Your task to perform on an android device: change the clock style Image 0: 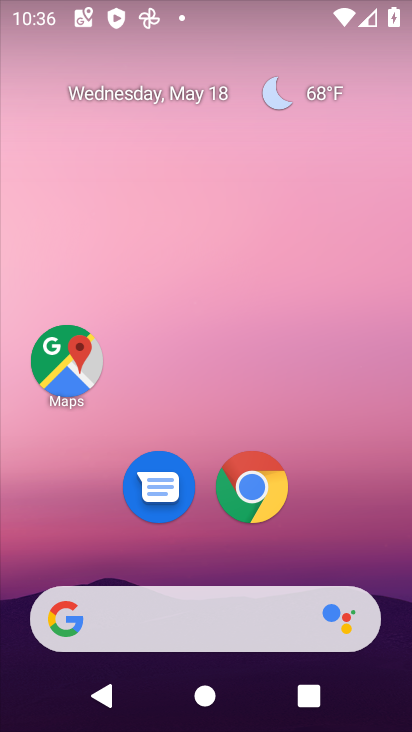
Step 0: drag from (311, 528) to (315, 179)
Your task to perform on an android device: change the clock style Image 1: 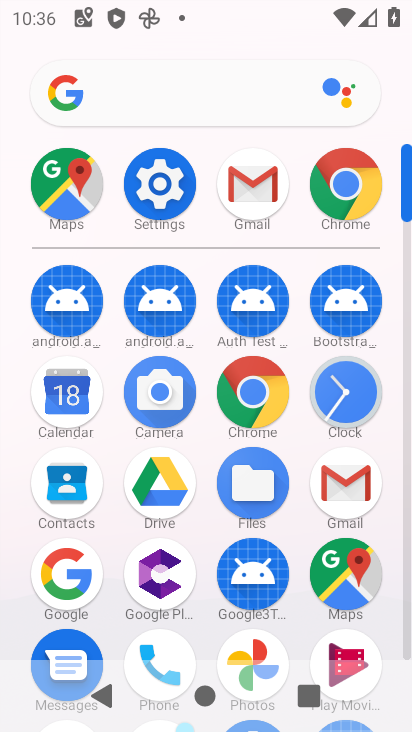
Step 1: click (343, 408)
Your task to perform on an android device: change the clock style Image 2: 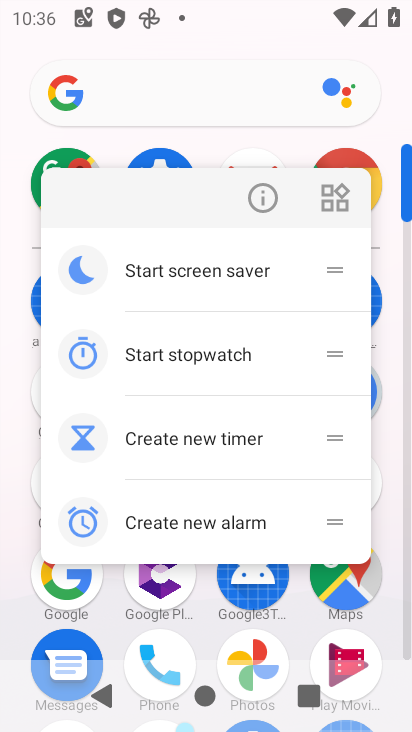
Step 2: click (377, 392)
Your task to perform on an android device: change the clock style Image 3: 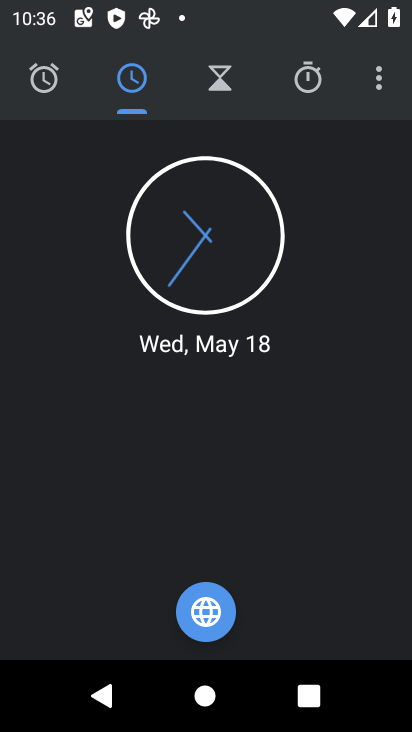
Step 3: click (373, 92)
Your task to perform on an android device: change the clock style Image 4: 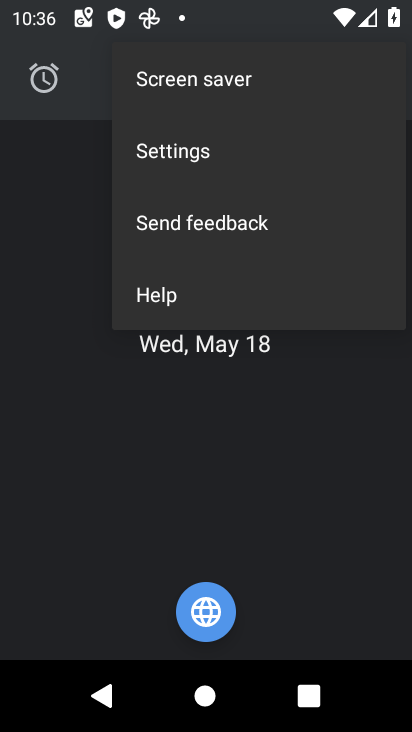
Step 4: click (197, 146)
Your task to perform on an android device: change the clock style Image 5: 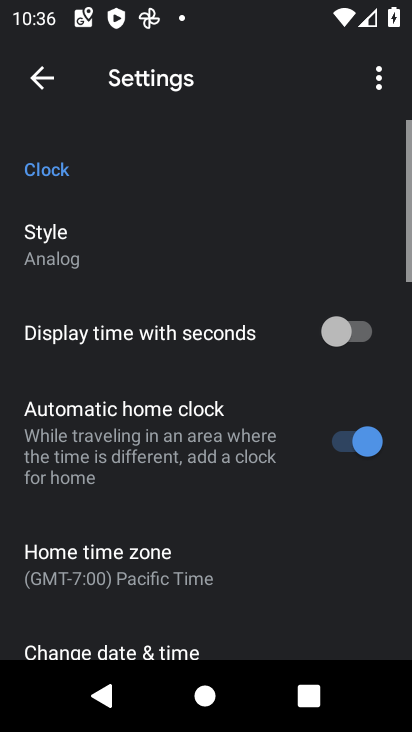
Step 5: click (51, 238)
Your task to perform on an android device: change the clock style Image 6: 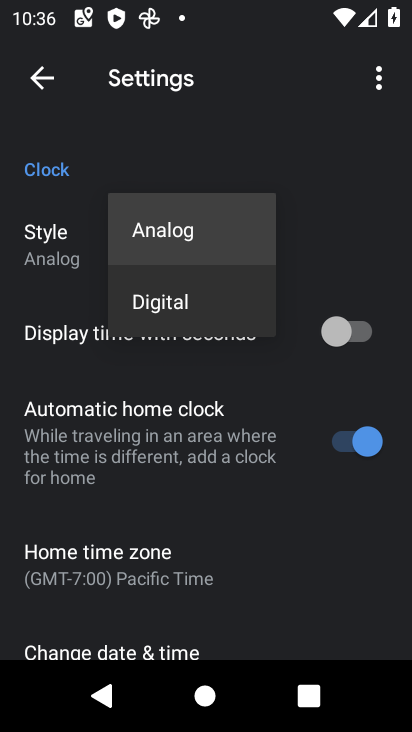
Step 6: click (124, 291)
Your task to perform on an android device: change the clock style Image 7: 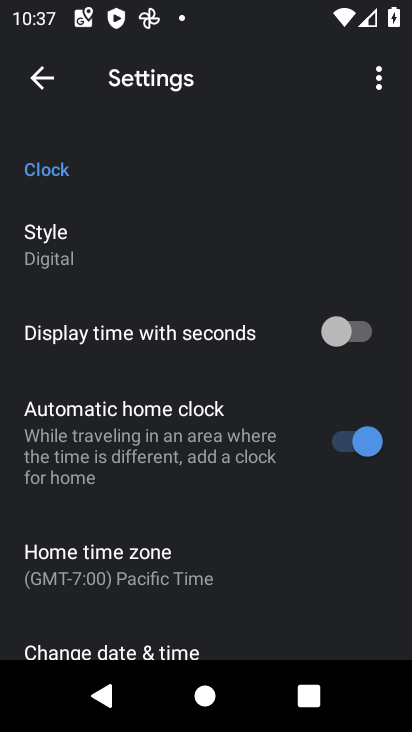
Step 7: task complete